Your task to perform on an android device: Open Google Maps Image 0: 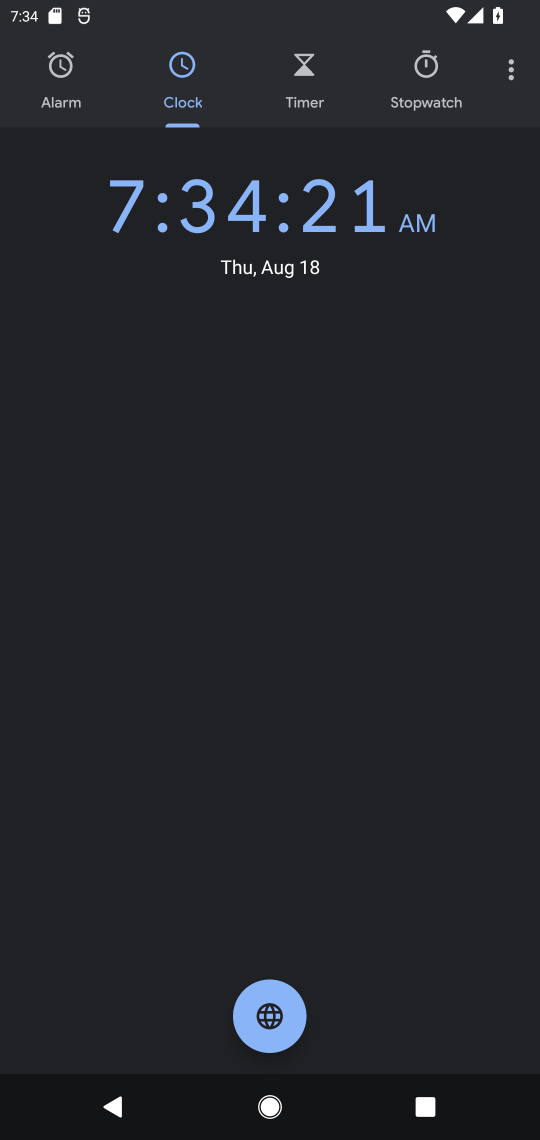
Step 0: press home button
Your task to perform on an android device: Open Google Maps Image 1: 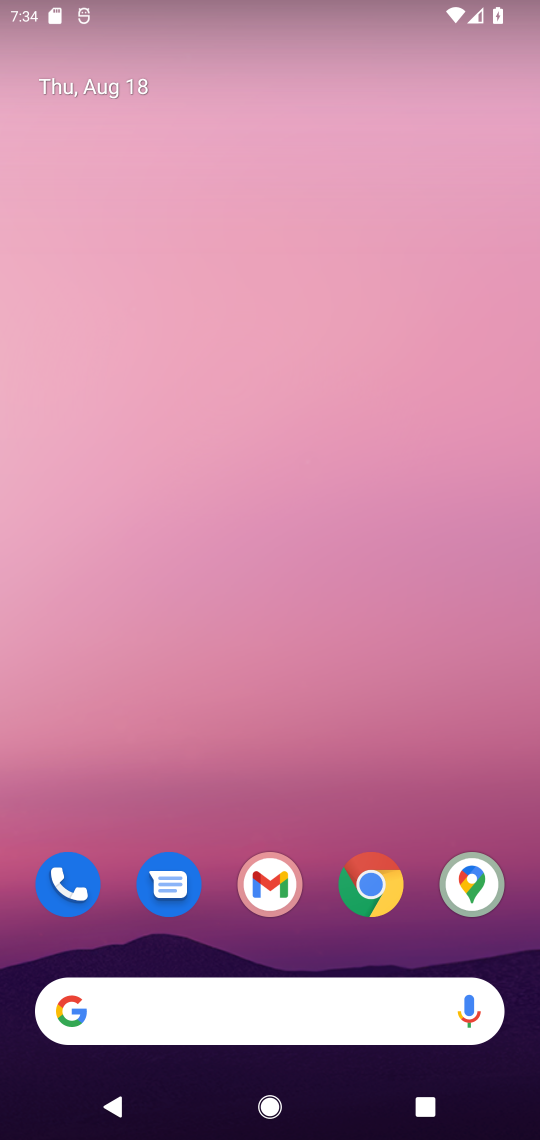
Step 1: click (454, 893)
Your task to perform on an android device: Open Google Maps Image 2: 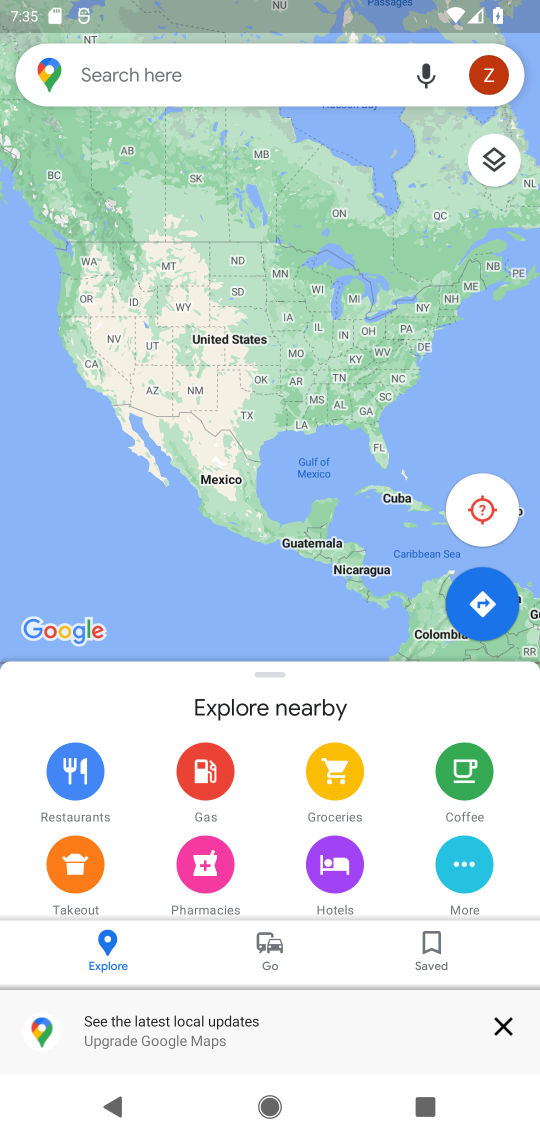
Step 2: task complete